Your task to perform on an android device: empty trash in the gmail app Image 0: 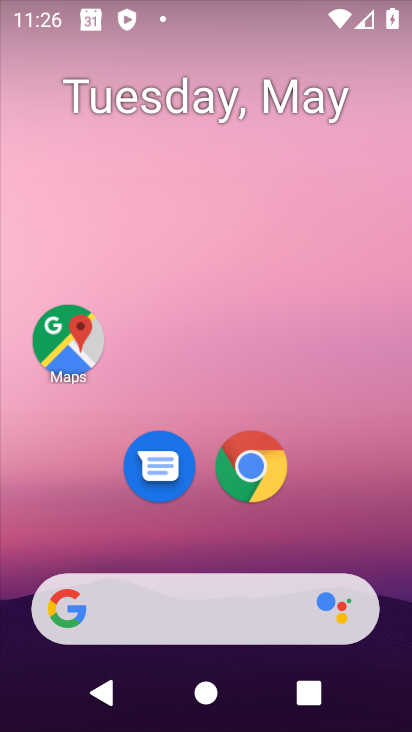
Step 0: drag from (210, 522) to (291, 20)
Your task to perform on an android device: empty trash in the gmail app Image 1: 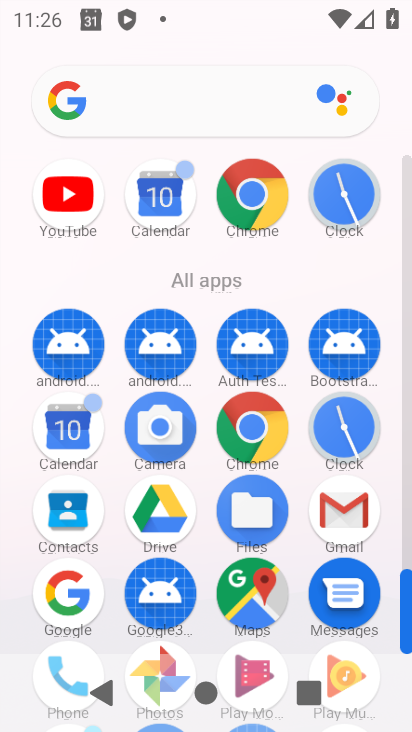
Step 1: click (339, 511)
Your task to perform on an android device: empty trash in the gmail app Image 2: 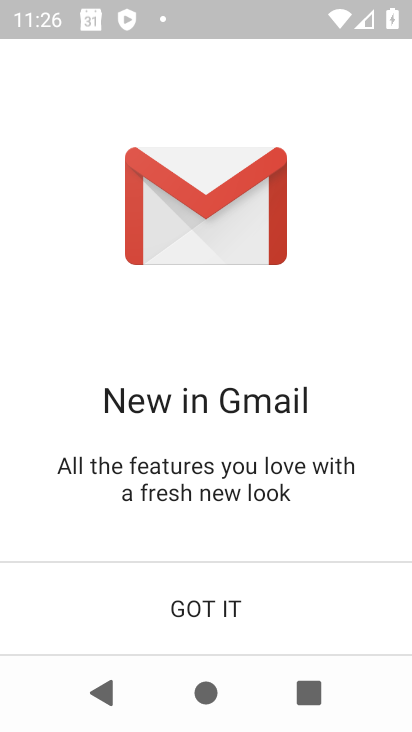
Step 2: click (229, 604)
Your task to perform on an android device: empty trash in the gmail app Image 3: 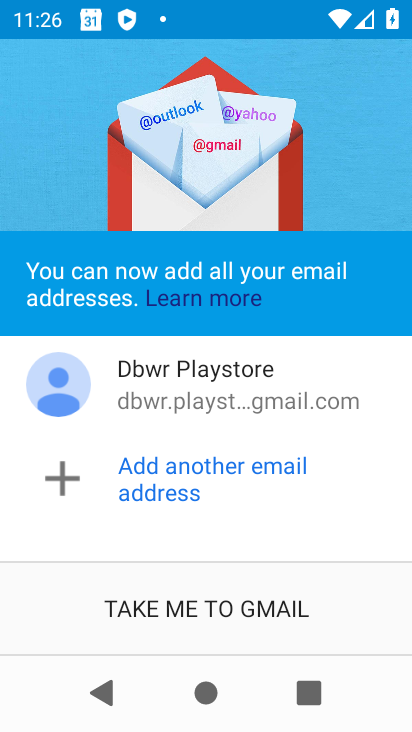
Step 3: click (180, 607)
Your task to perform on an android device: empty trash in the gmail app Image 4: 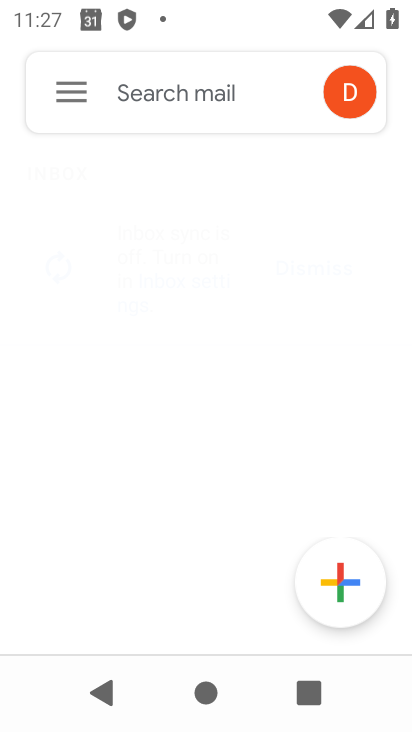
Step 4: click (50, 84)
Your task to perform on an android device: empty trash in the gmail app Image 5: 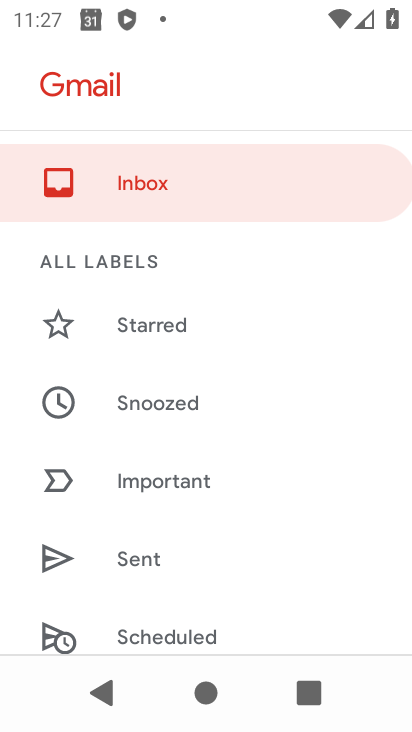
Step 5: drag from (148, 584) to (262, 104)
Your task to perform on an android device: empty trash in the gmail app Image 6: 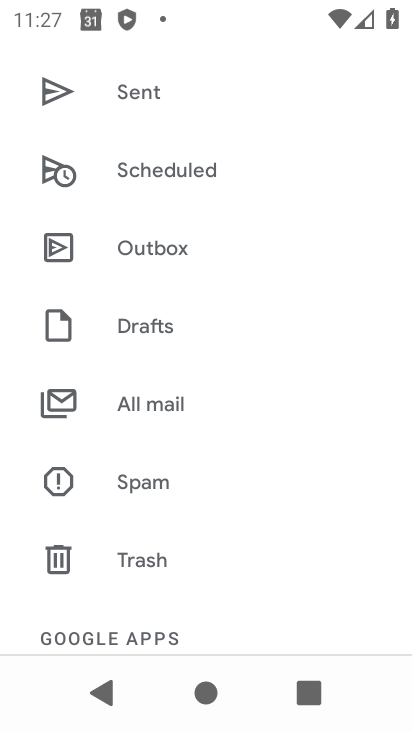
Step 6: click (131, 555)
Your task to perform on an android device: empty trash in the gmail app Image 7: 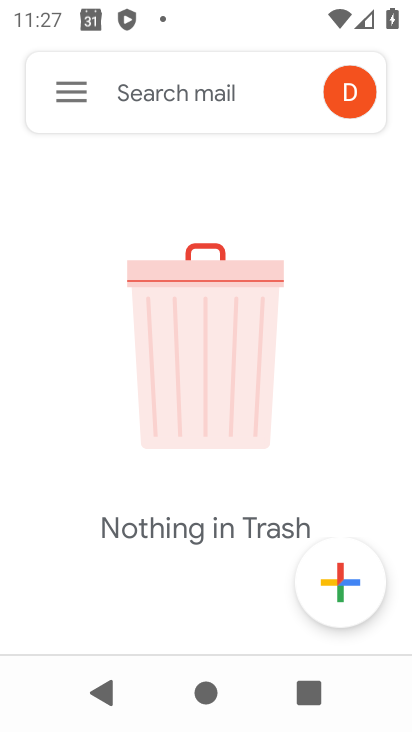
Step 7: task complete